Your task to perform on an android device: Open battery settings Image 0: 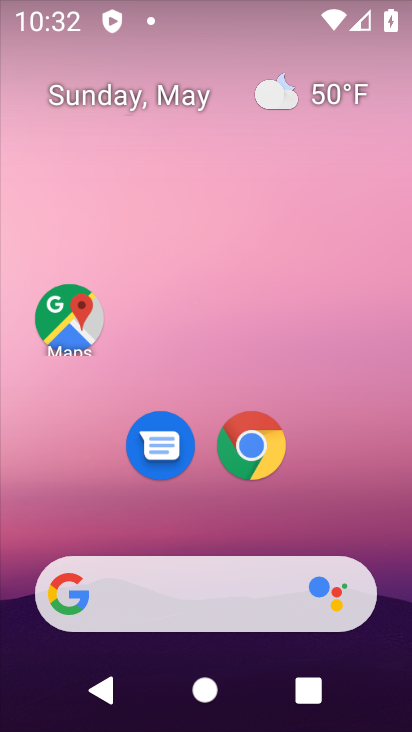
Step 0: drag from (230, 519) to (316, 14)
Your task to perform on an android device: Open battery settings Image 1: 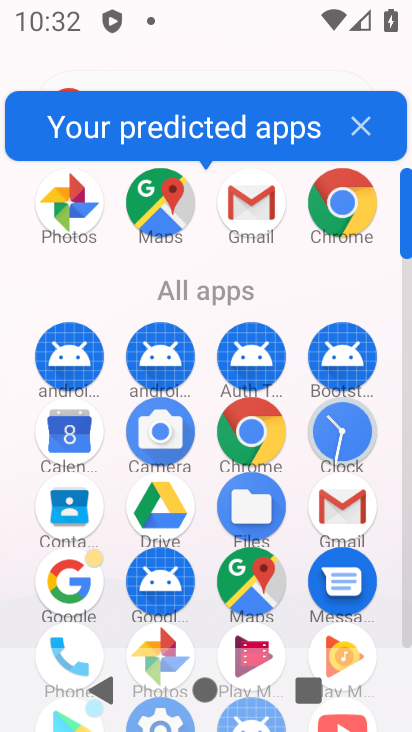
Step 1: drag from (214, 581) to (312, 14)
Your task to perform on an android device: Open battery settings Image 2: 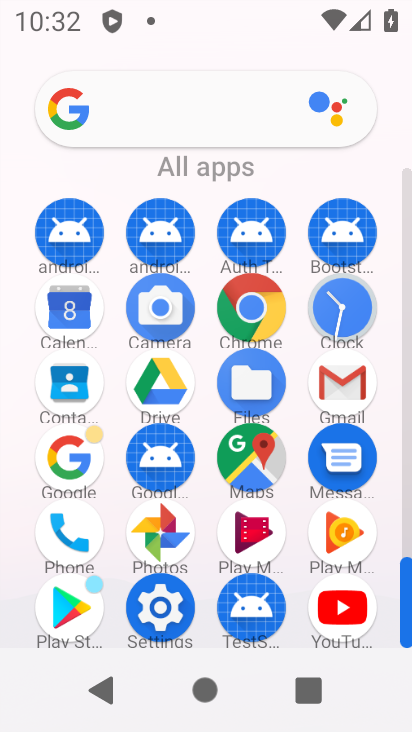
Step 2: click (169, 607)
Your task to perform on an android device: Open battery settings Image 3: 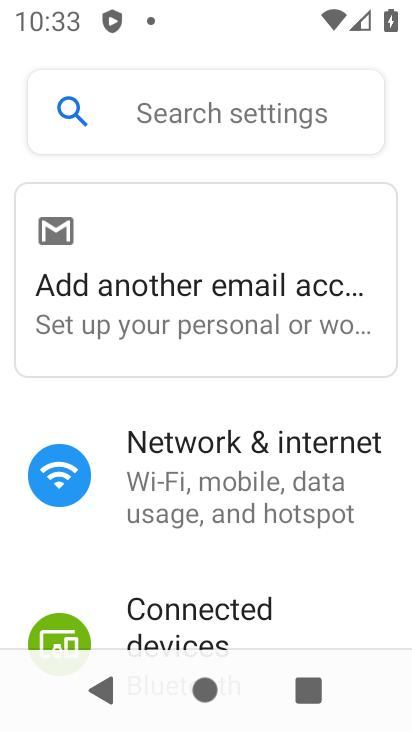
Step 3: drag from (205, 566) to (241, 280)
Your task to perform on an android device: Open battery settings Image 4: 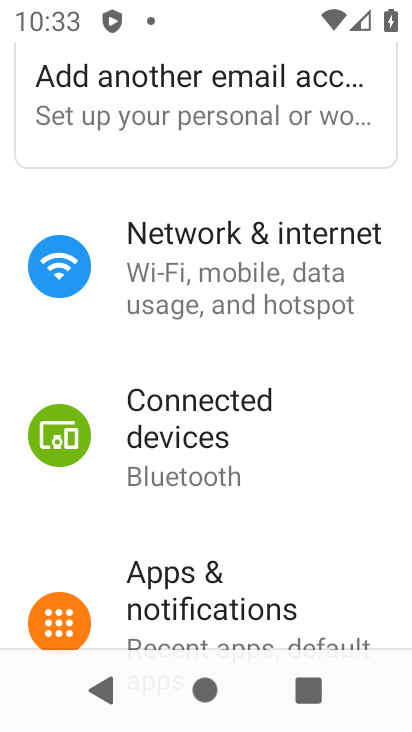
Step 4: drag from (226, 577) to (288, 157)
Your task to perform on an android device: Open battery settings Image 5: 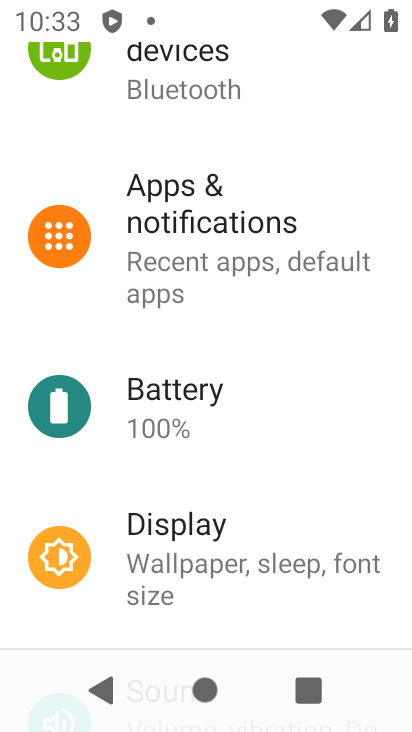
Step 5: click (176, 415)
Your task to perform on an android device: Open battery settings Image 6: 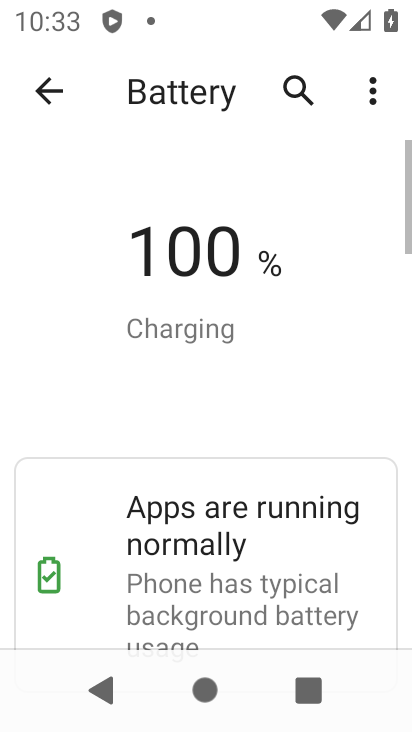
Step 6: task complete